Your task to perform on an android device: What's on my calendar tomorrow? Image 0: 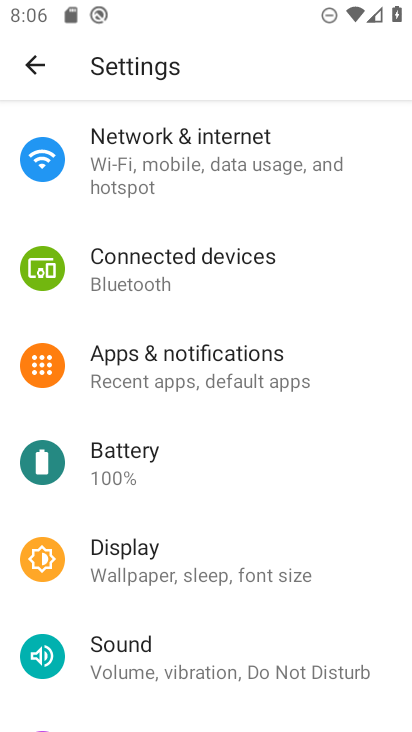
Step 0: press home button
Your task to perform on an android device: What's on my calendar tomorrow? Image 1: 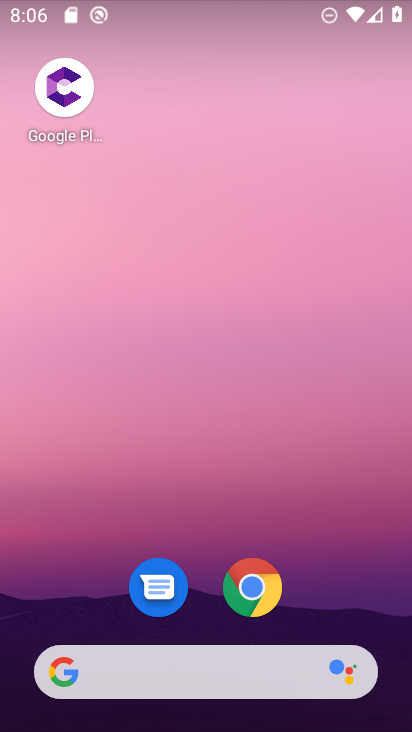
Step 1: drag from (349, 534) to (314, 59)
Your task to perform on an android device: What's on my calendar tomorrow? Image 2: 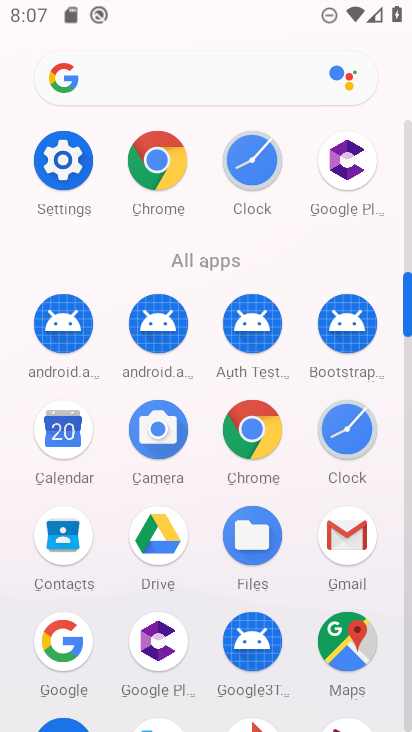
Step 2: click (69, 457)
Your task to perform on an android device: What's on my calendar tomorrow? Image 3: 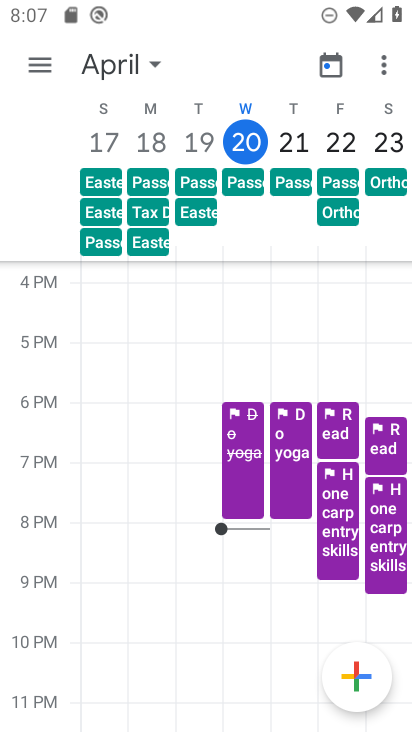
Step 3: click (41, 57)
Your task to perform on an android device: What's on my calendar tomorrow? Image 4: 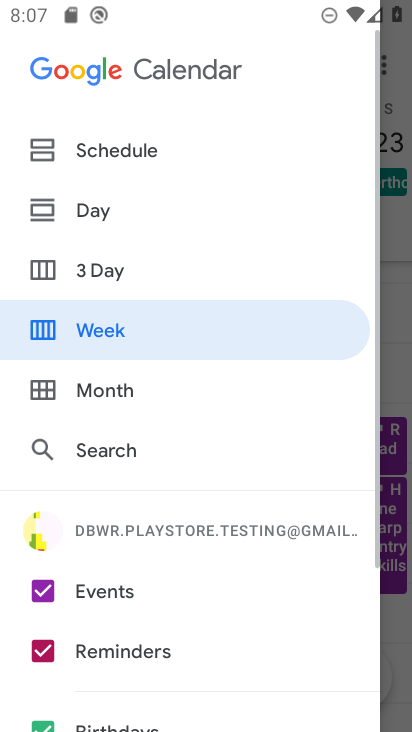
Step 4: click (129, 215)
Your task to perform on an android device: What's on my calendar tomorrow? Image 5: 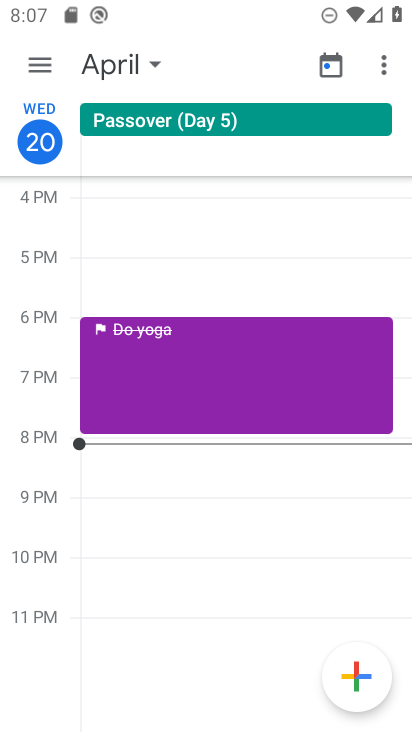
Step 5: click (128, 59)
Your task to perform on an android device: What's on my calendar tomorrow? Image 6: 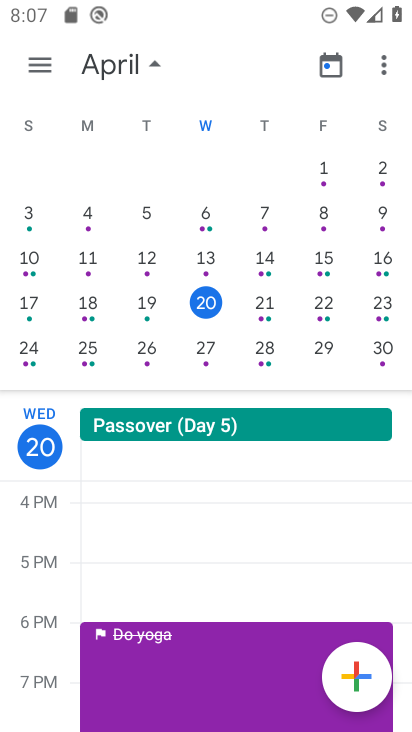
Step 6: click (268, 294)
Your task to perform on an android device: What's on my calendar tomorrow? Image 7: 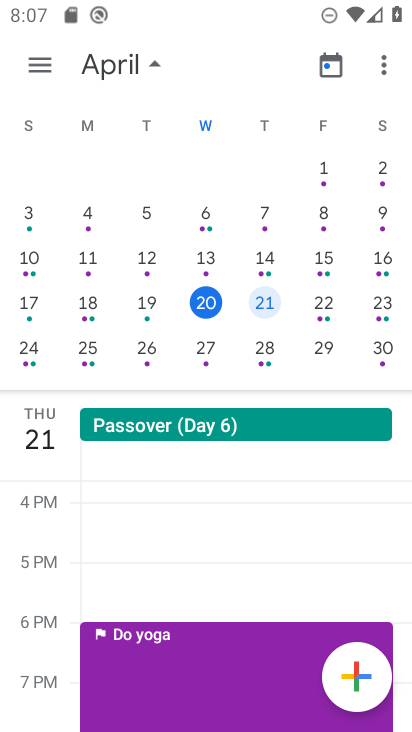
Step 7: task complete